Your task to perform on an android device: check data usage Image 0: 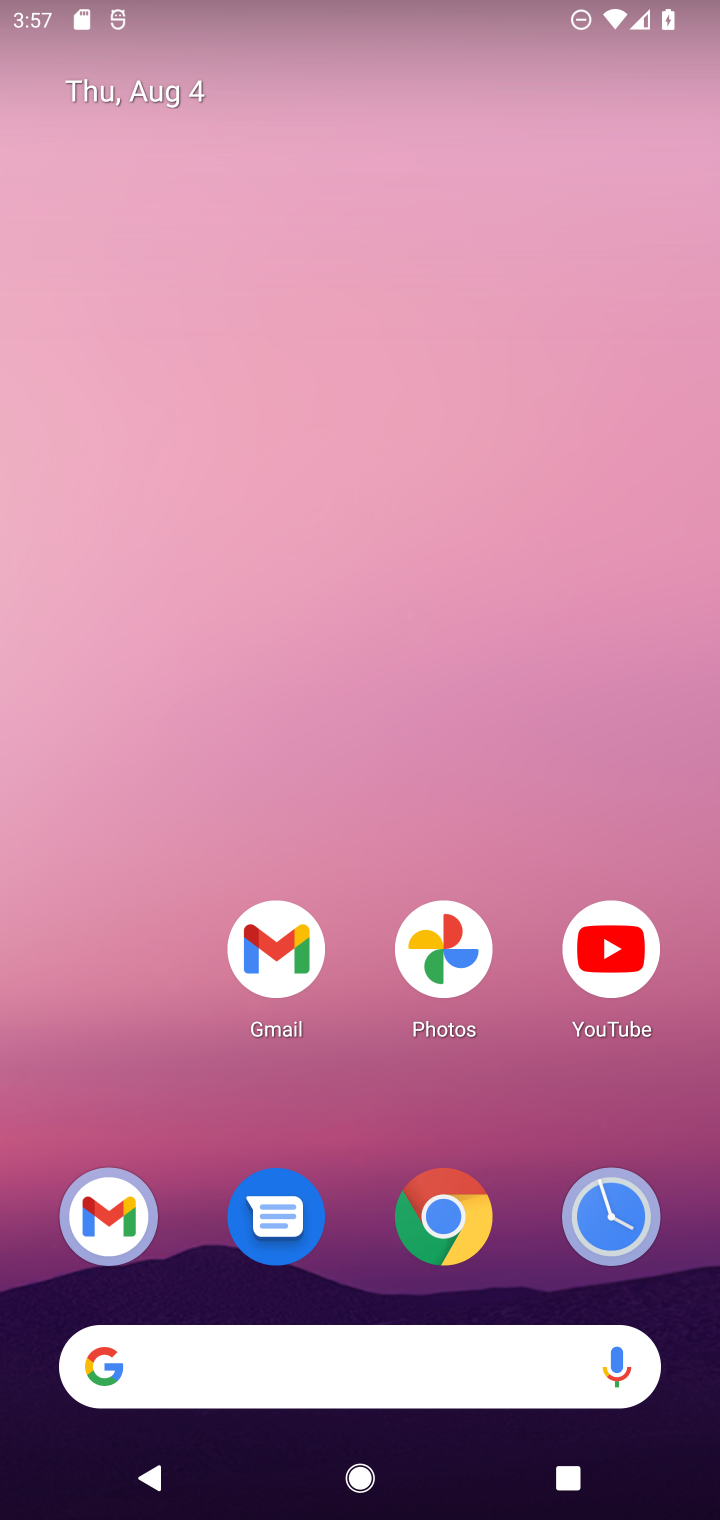
Step 0: drag from (166, 1154) to (321, 0)
Your task to perform on an android device: check data usage Image 1: 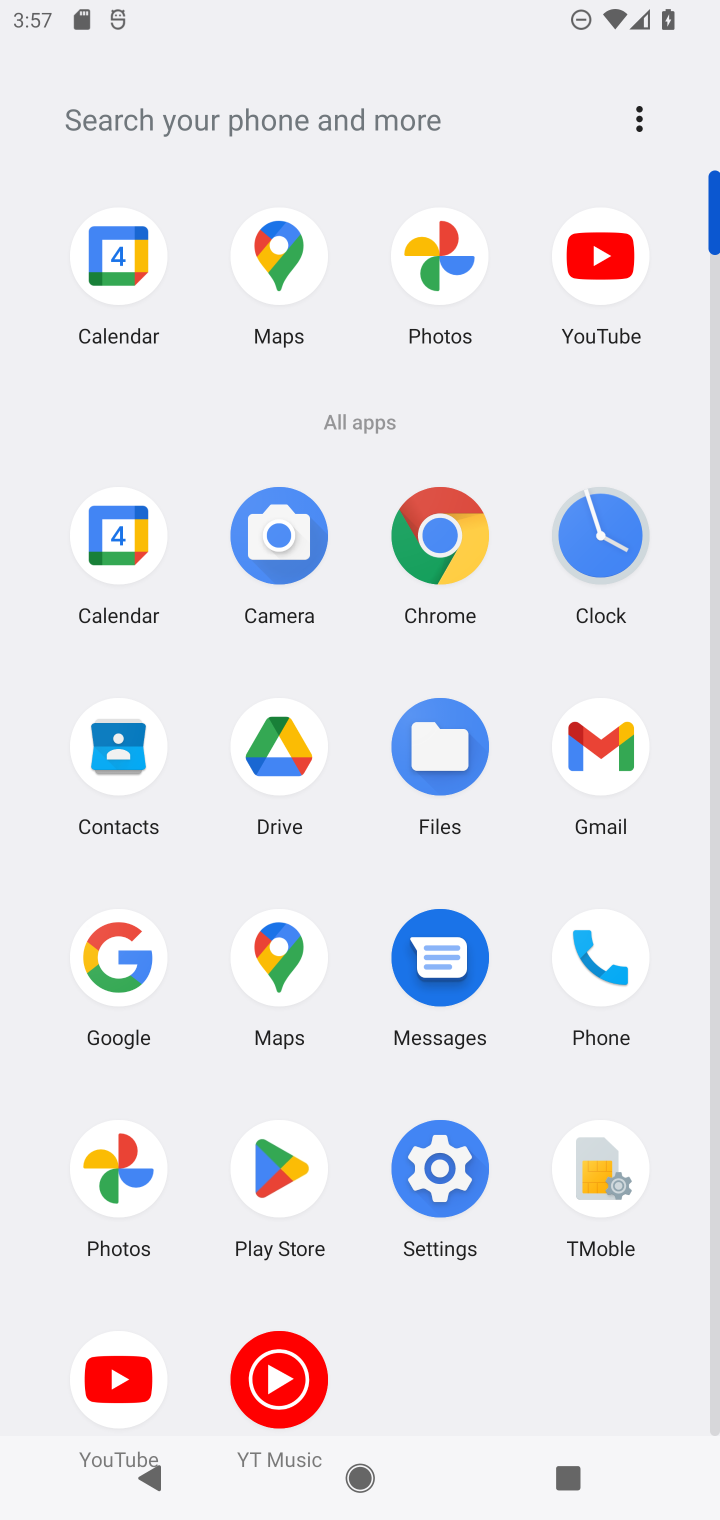
Step 1: click (445, 1160)
Your task to perform on an android device: check data usage Image 2: 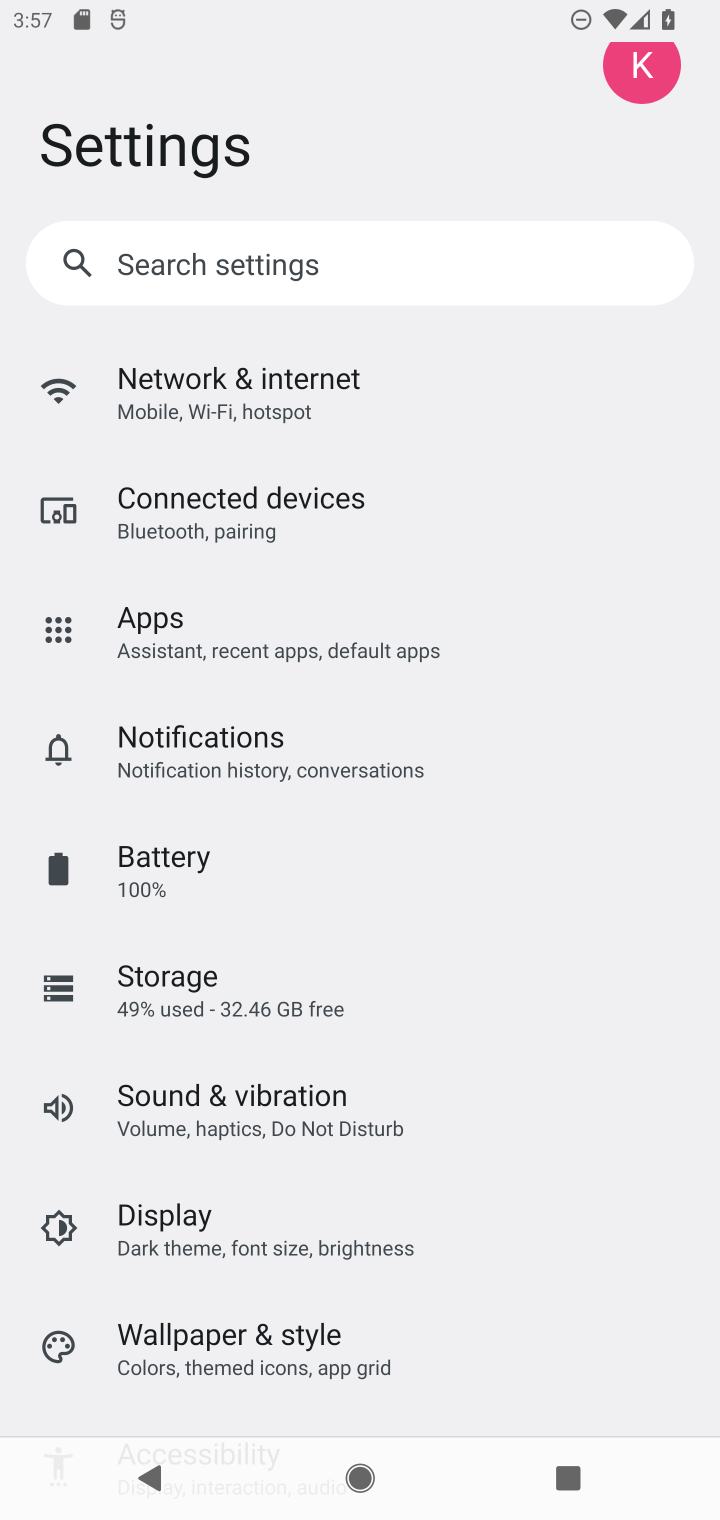
Step 2: click (316, 393)
Your task to perform on an android device: check data usage Image 3: 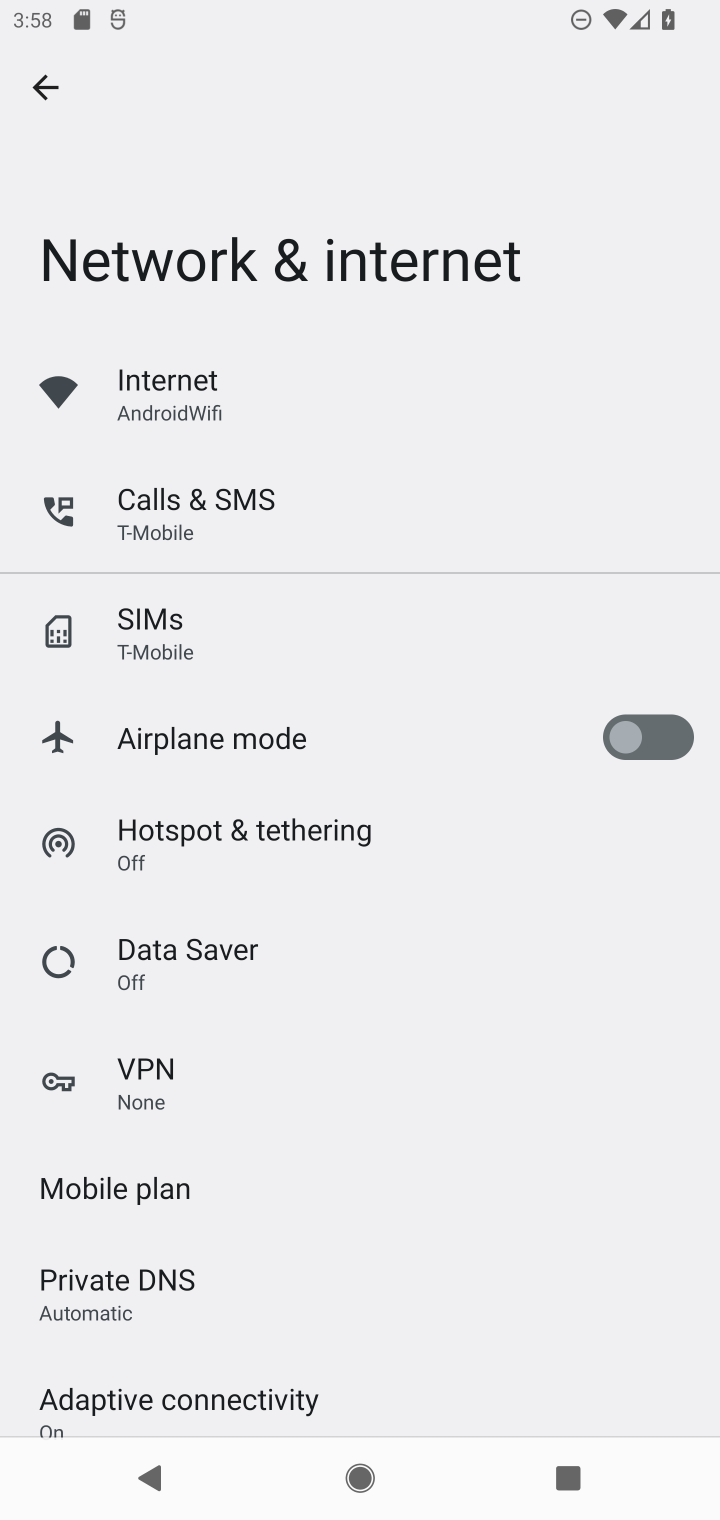
Step 3: drag from (333, 1334) to (495, 364)
Your task to perform on an android device: check data usage Image 4: 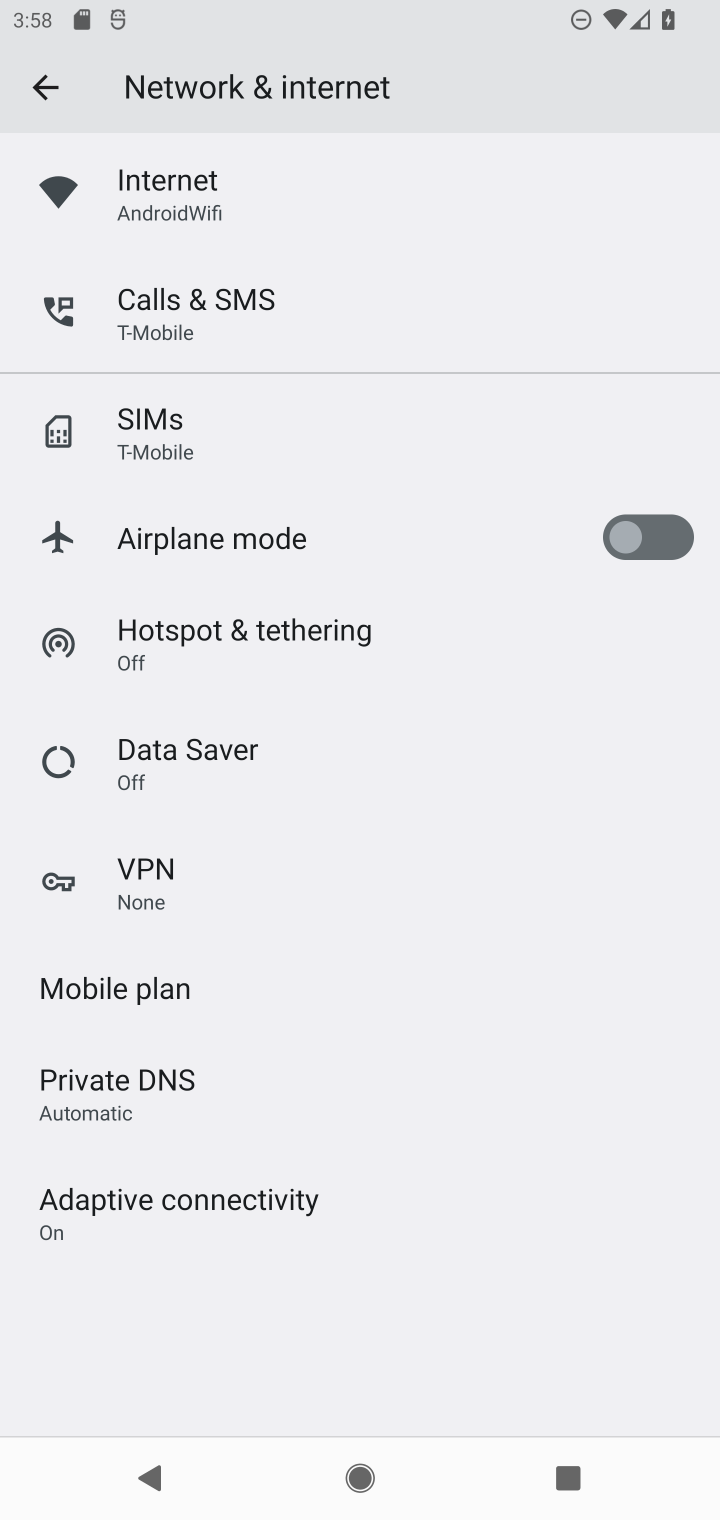
Step 4: drag from (396, 333) to (315, 1319)
Your task to perform on an android device: check data usage Image 5: 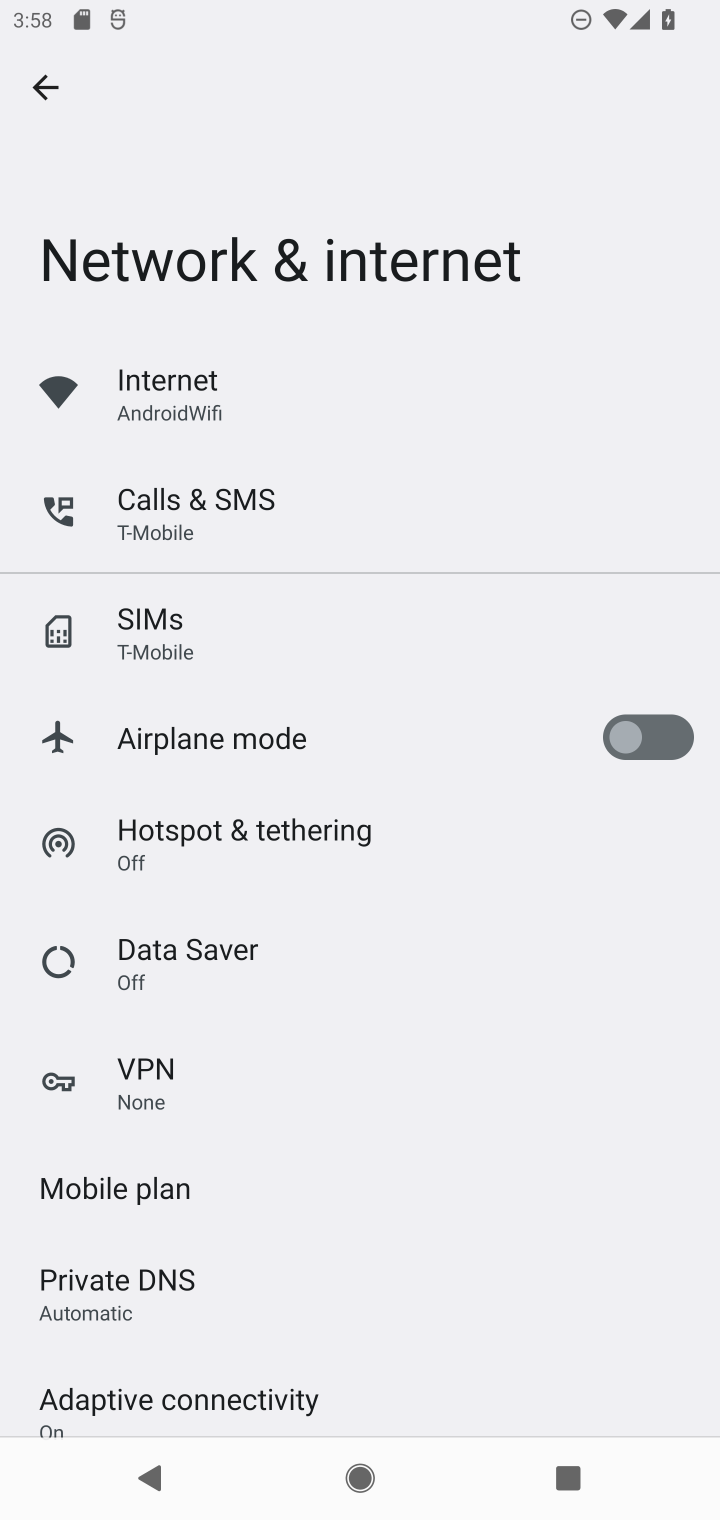
Step 5: click (37, 84)
Your task to perform on an android device: check data usage Image 6: 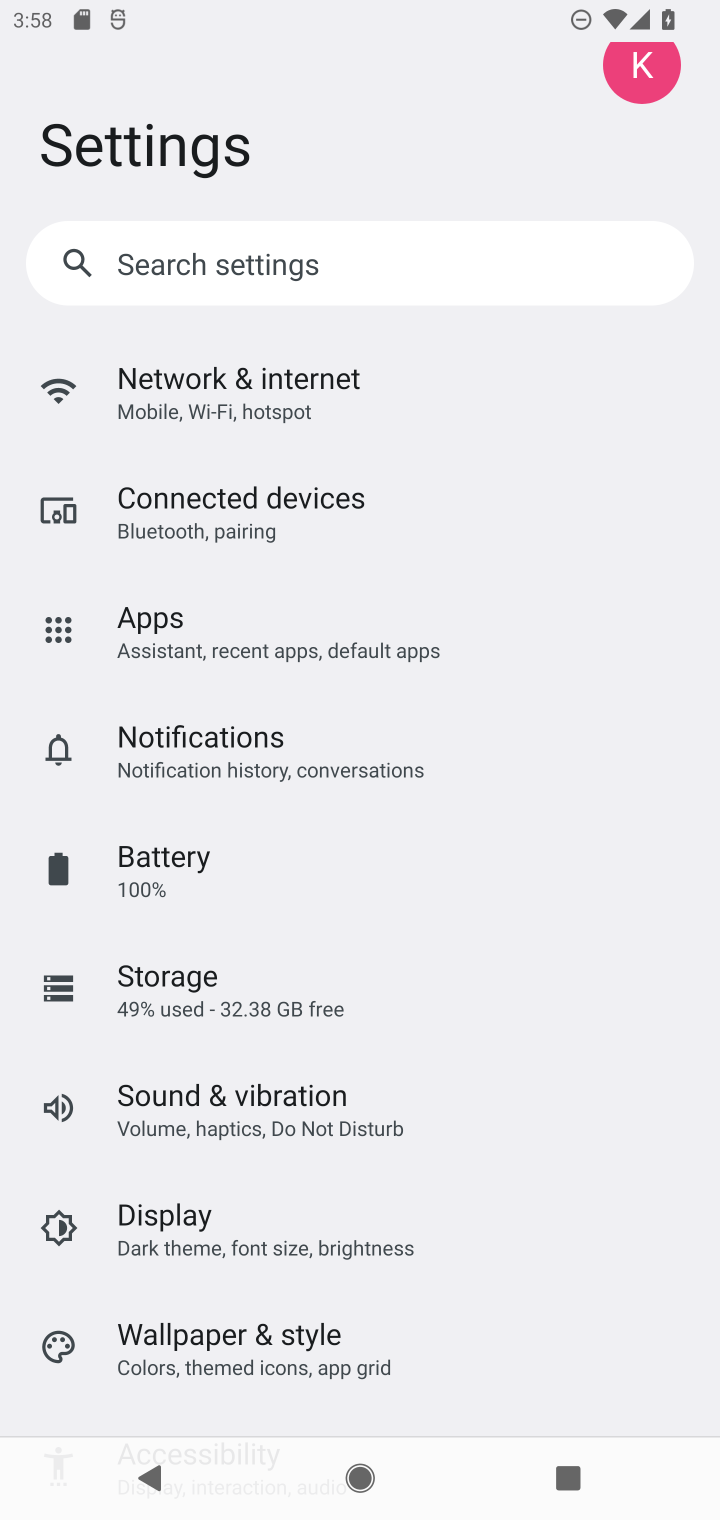
Step 6: click (276, 384)
Your task to perform on an android device: check data usage Image 7: 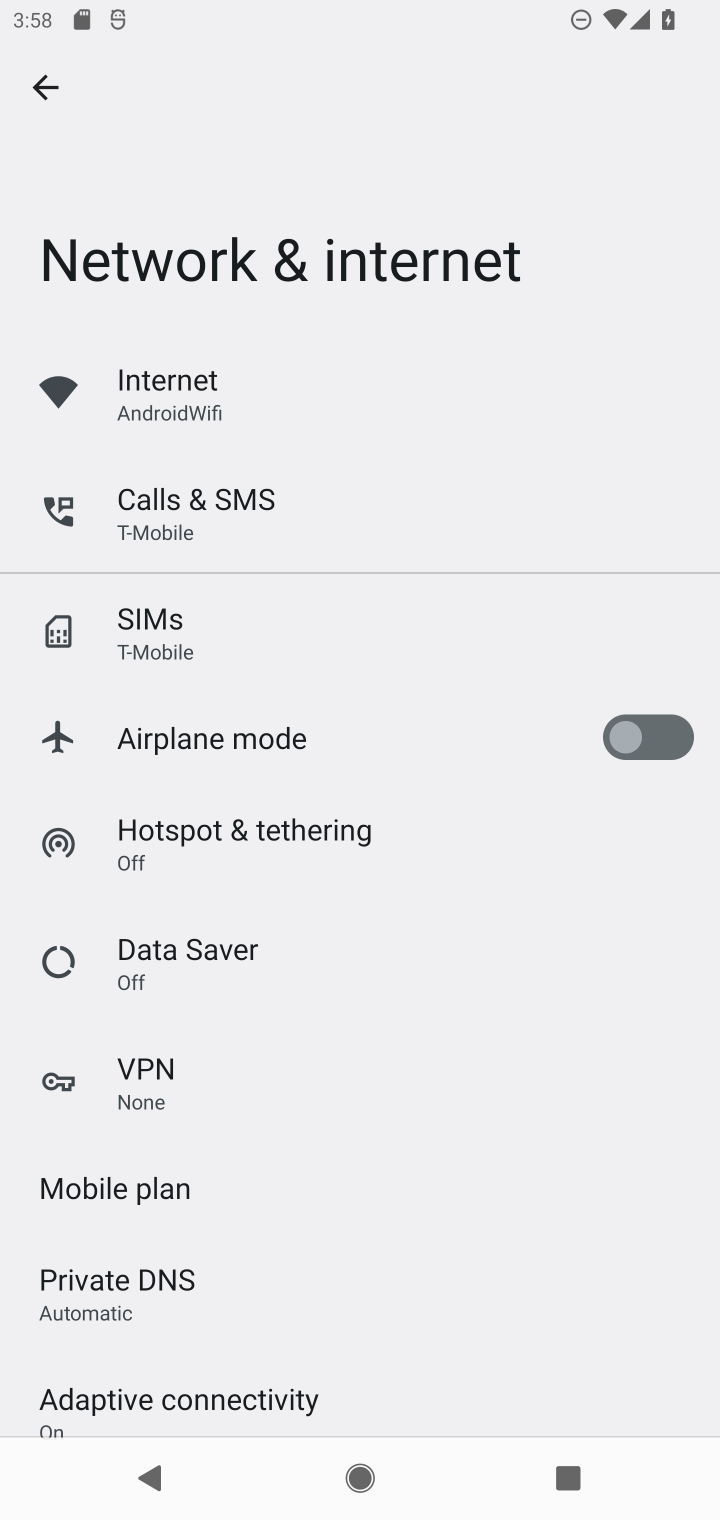
Step 7: click (178, 385)
Your task to perform on an android device: check data usage Image 8: 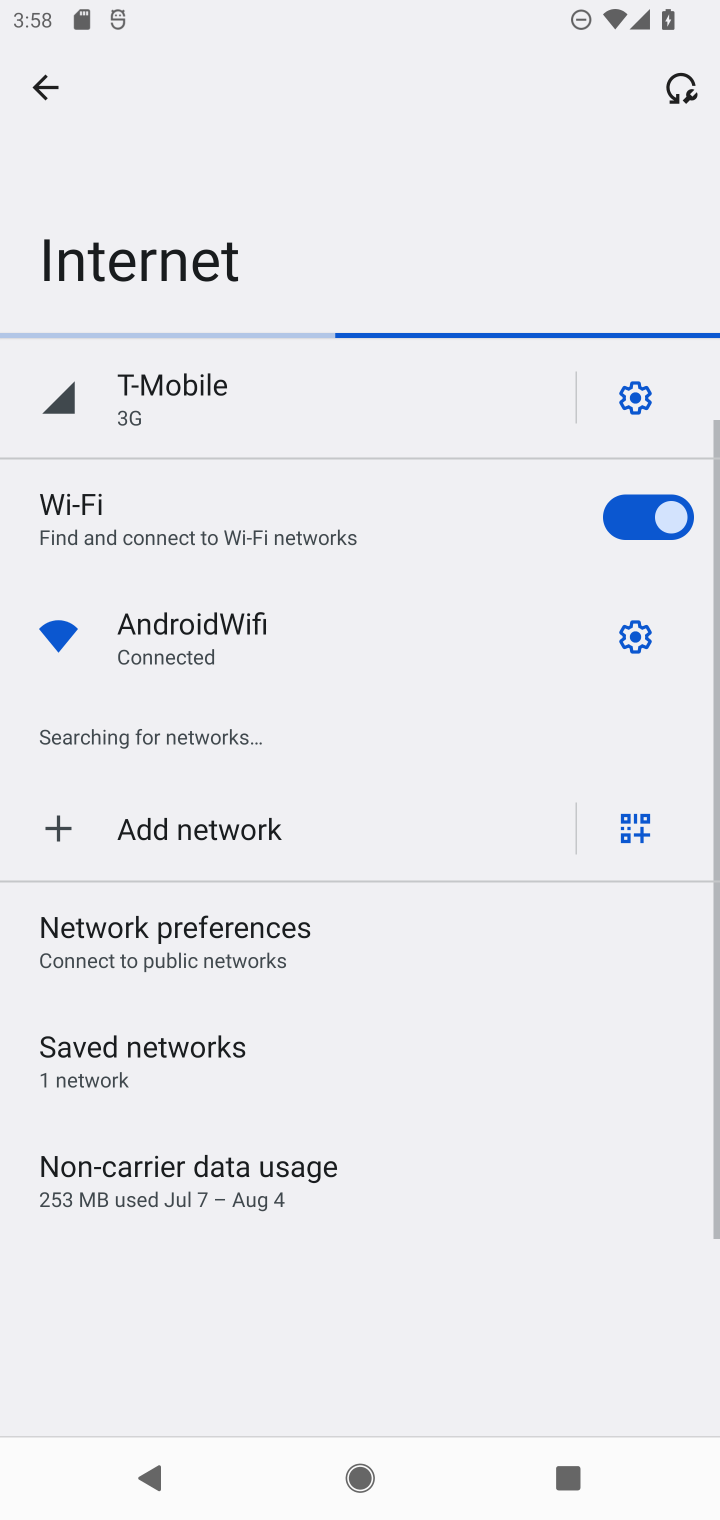
Step 8: click (47, 94)
Your task to perform on an android device: check data usage Image 9: 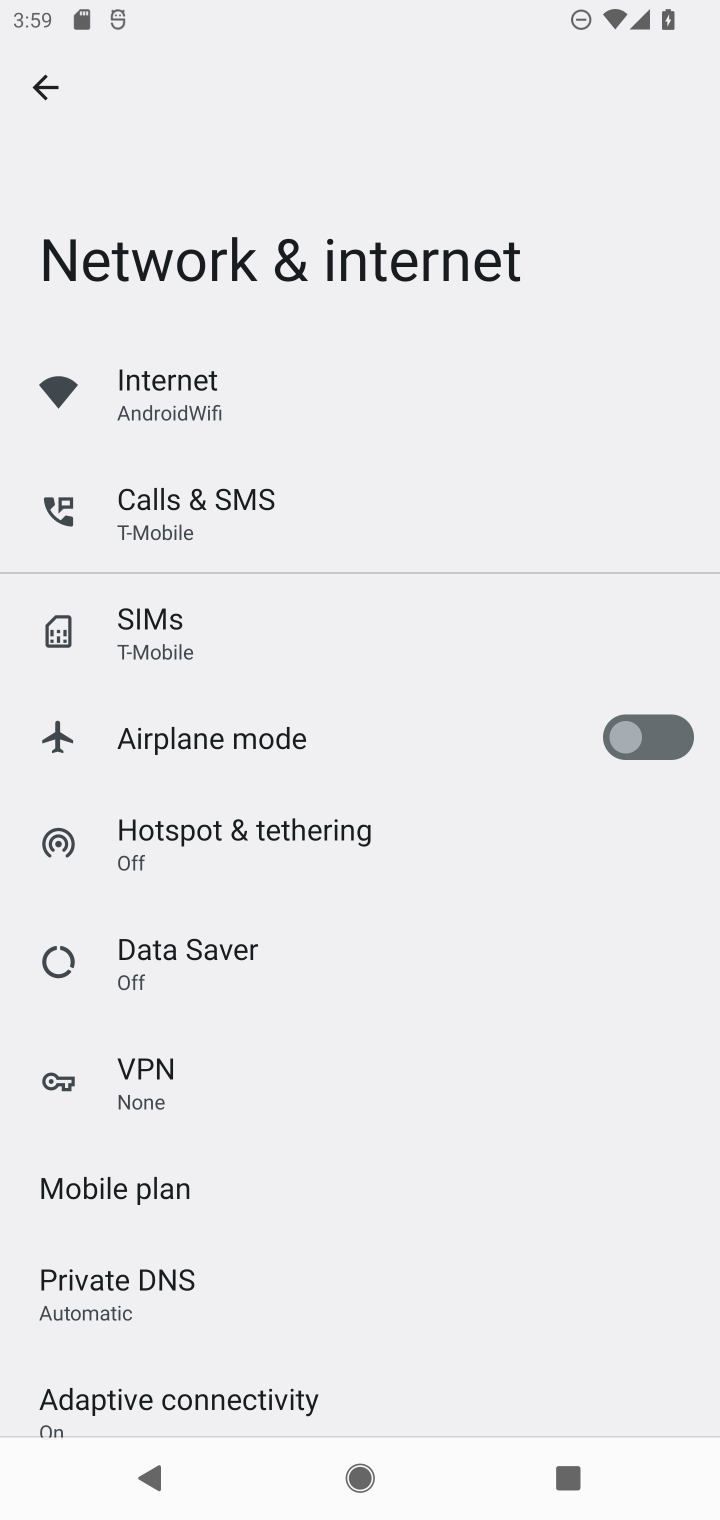
Step 9: drag from (231, 1266) to (333, 443)
Your task to perform on an android device: check data usage Image 10: 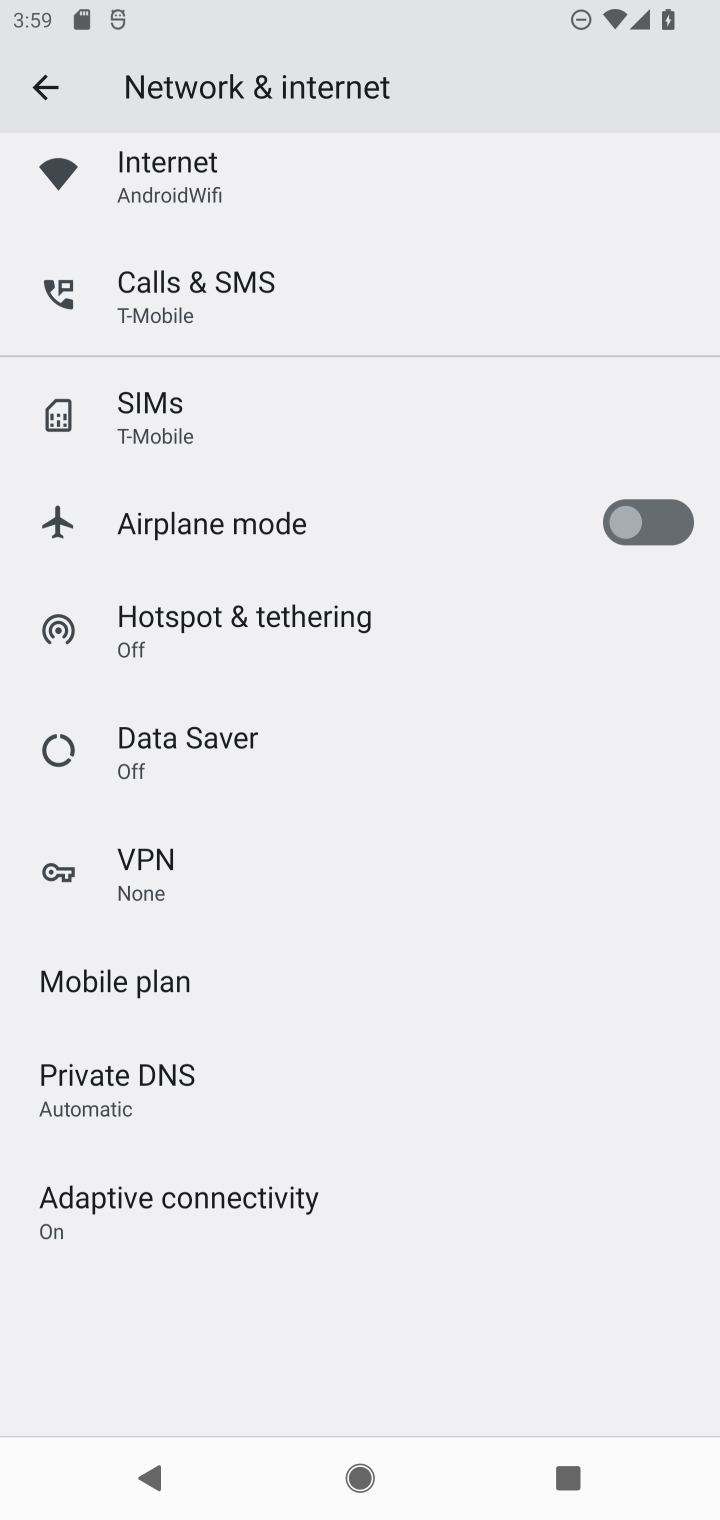
Step 10: drag from (347, 502) to (367, 1048)
Your task to perform on an android device: check data usage Image 11: 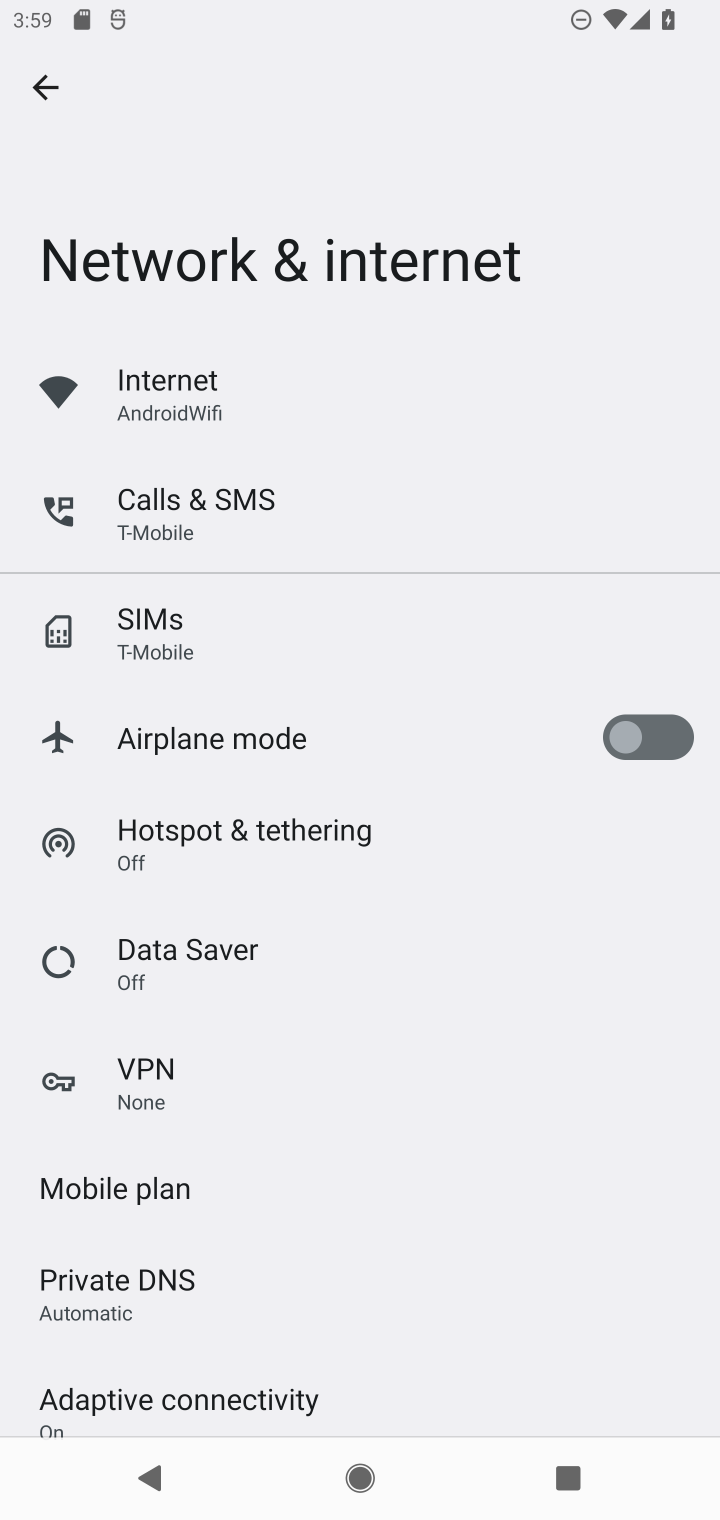
Step 11: click (242, 520)
Your task to perform on an android device: check data usage Image 12: 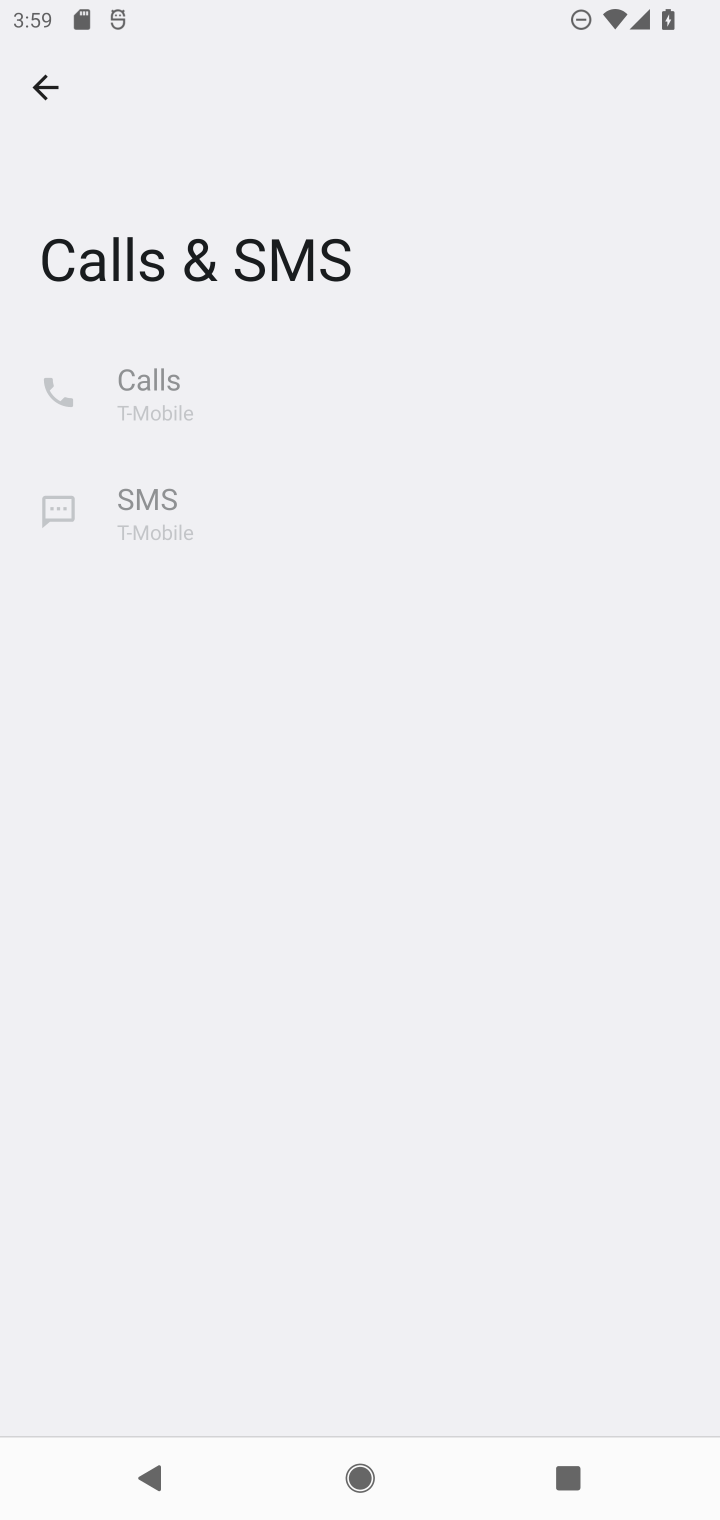
Step 12: click (59, 89)
Your task to perform on an android device: check data usage Image 13: 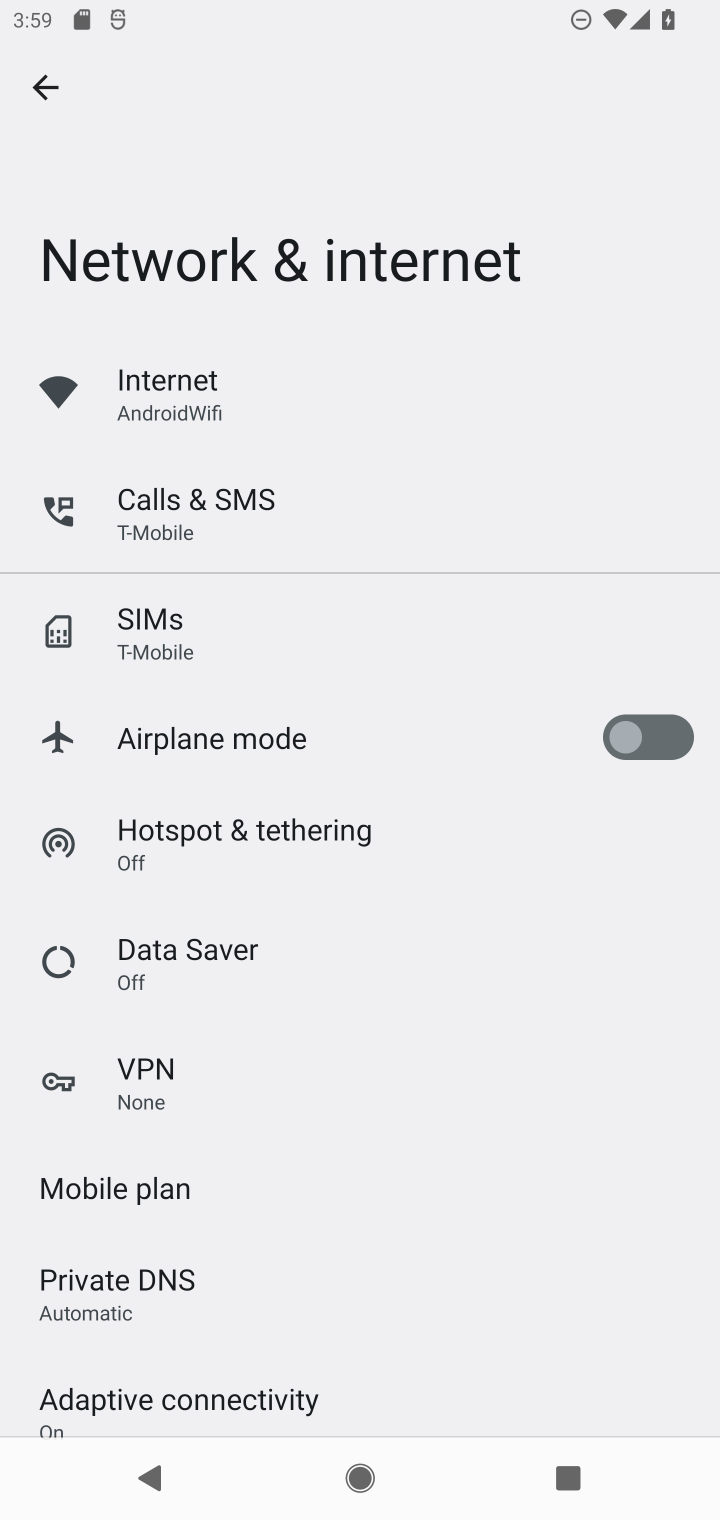
Step 13: task complete